Your task to perform on an android device: Add macbook to the cart on newegg, then select checkout. Image 0: 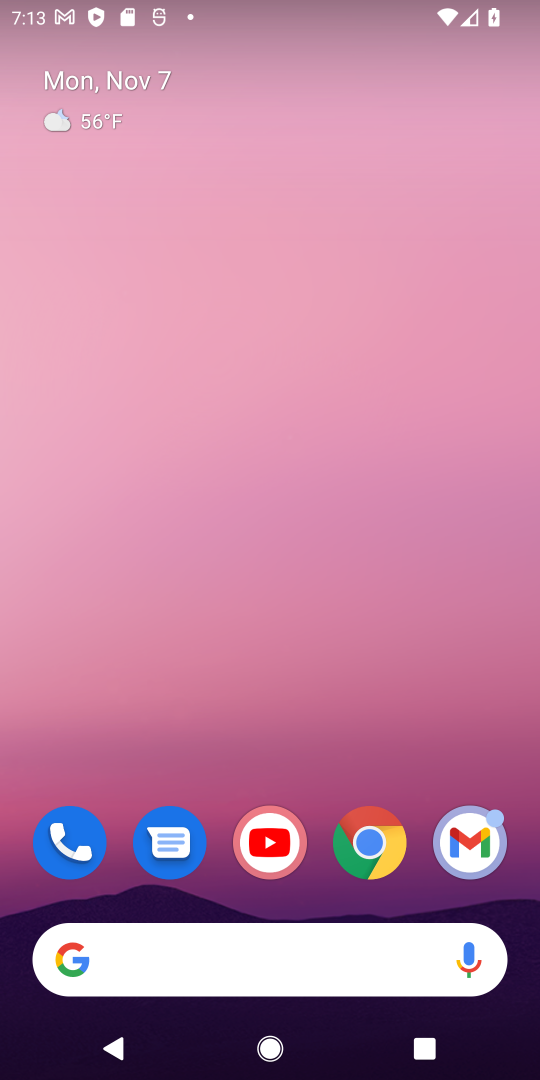
Step 0: click (373, 832)
Your task to perform on an android device: Add macbook to the cart on newegg, then select checkout. Image 1: 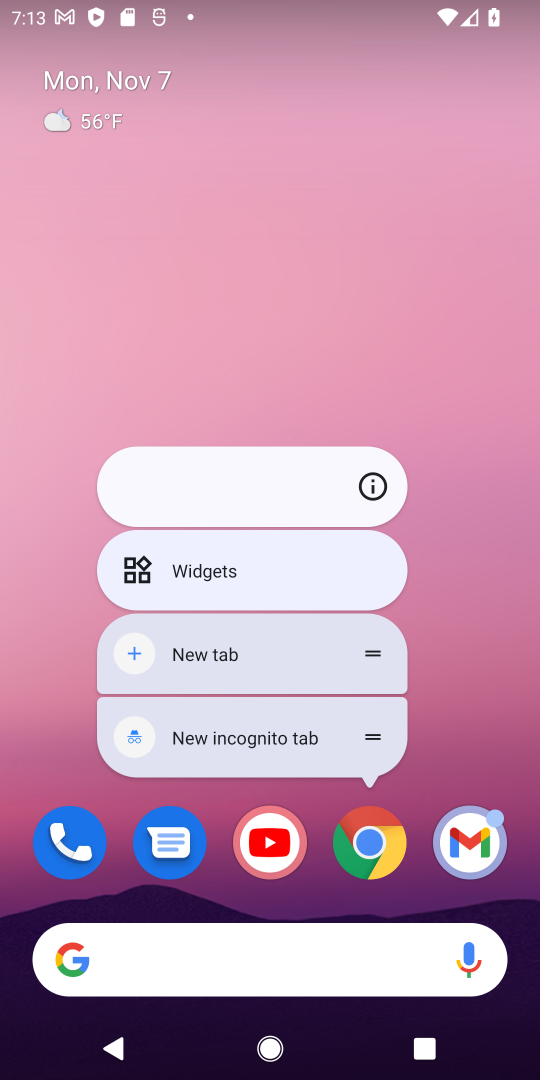
Step 1: click (381, 836)
Your task to perform on an android device: Add macbook to the cart on newegg, then select checkout. Image 2: 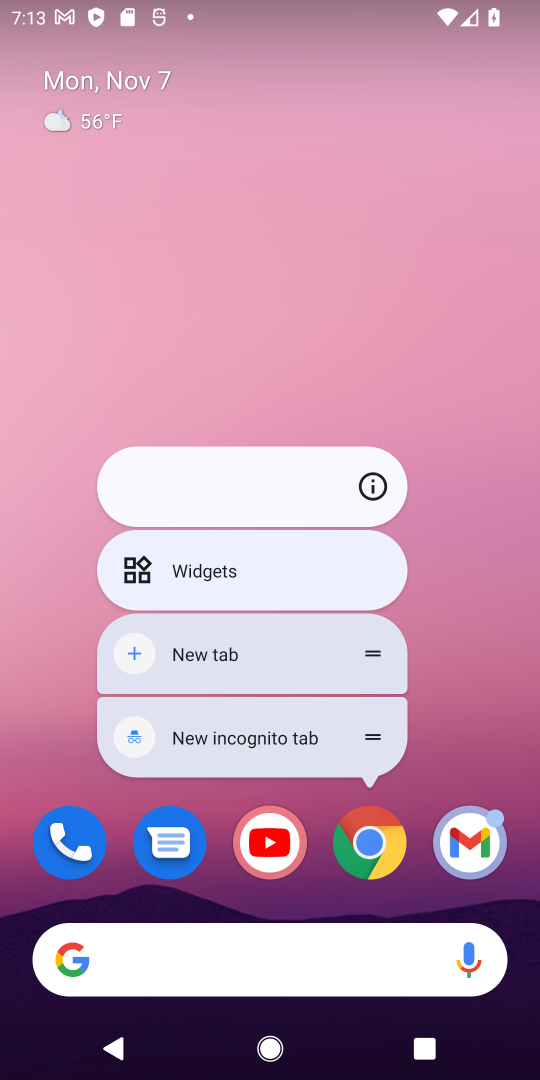
Step 2: click (364, 852)
Your task to perform on an android device: Add macbook to the cart on newegg, then select checkout. Image 3: 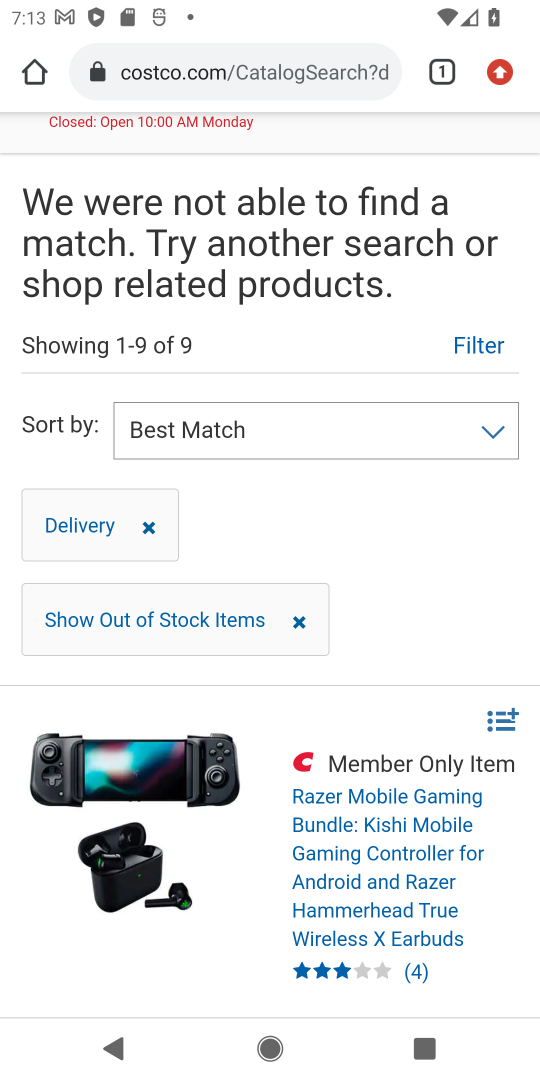
Step 3: click (293, 61)
Your task to perform on an android device: Add macbook to the cart on newegg, then select checkout. Image 4: 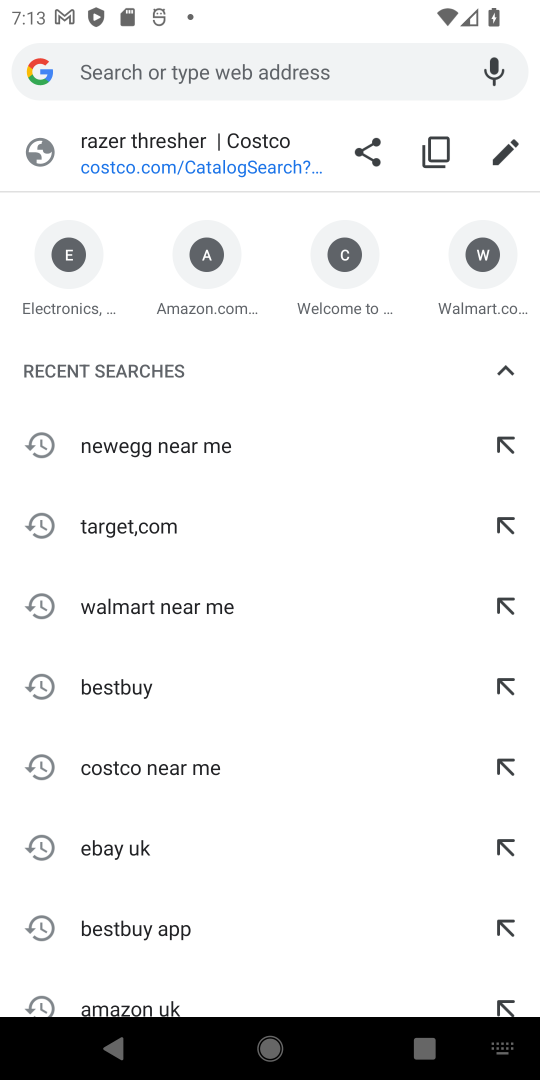
Step 4: click (103, 446)
Your task to perform on an android device: Add macbook to the cart on newegg, then select checkout. Image 5: 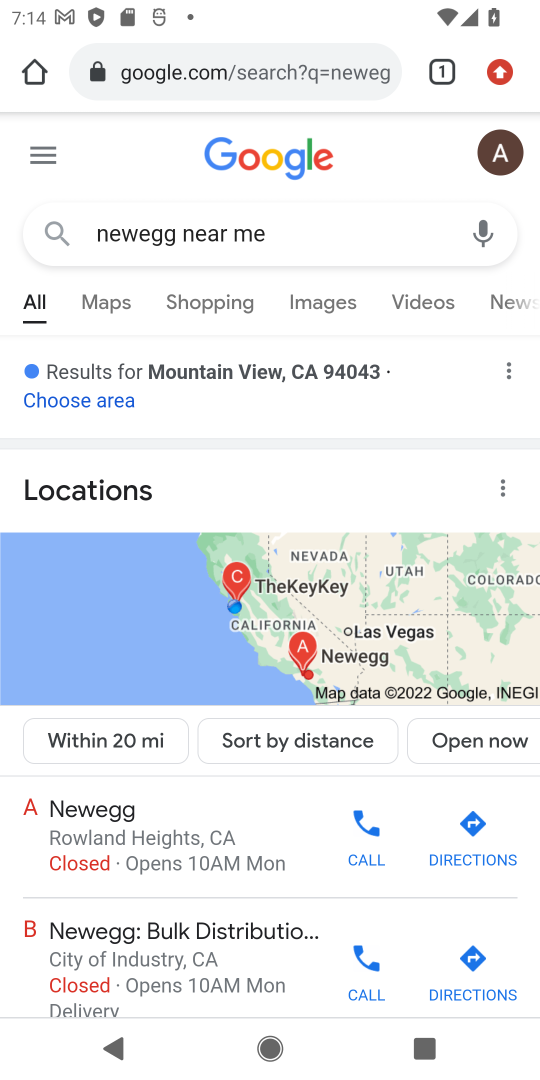
Step 5: drag from (144, 859) to (494, 119)
Your task to perform on an android device: Add macbook to the cart on newegg, then select checkout. Image 6: 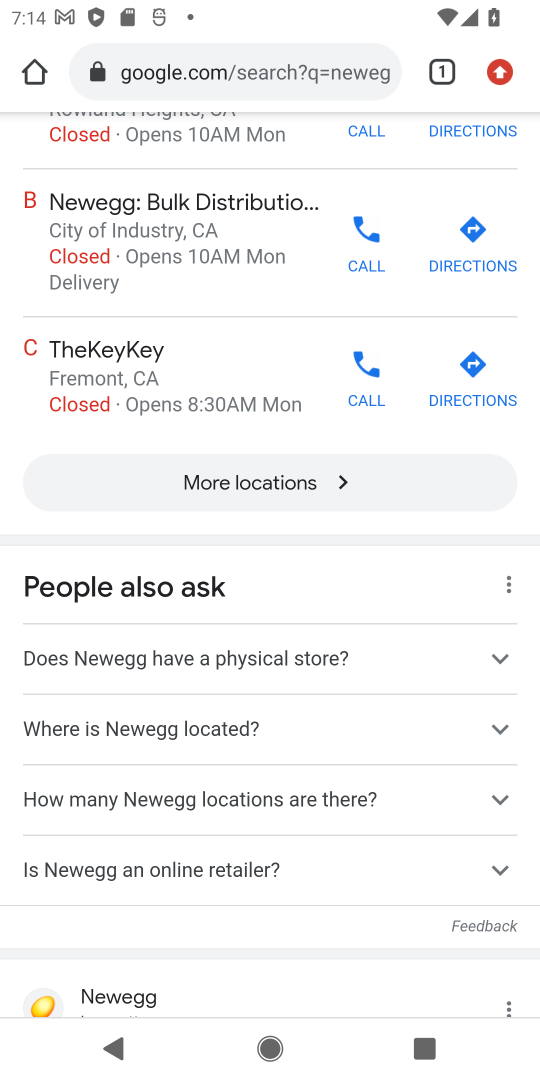
Step 6: drag from (224, 836) to (477, 185)
Your task to perform on an android device: Add macbook to the cart on newegg, then select checkout. Image 7: 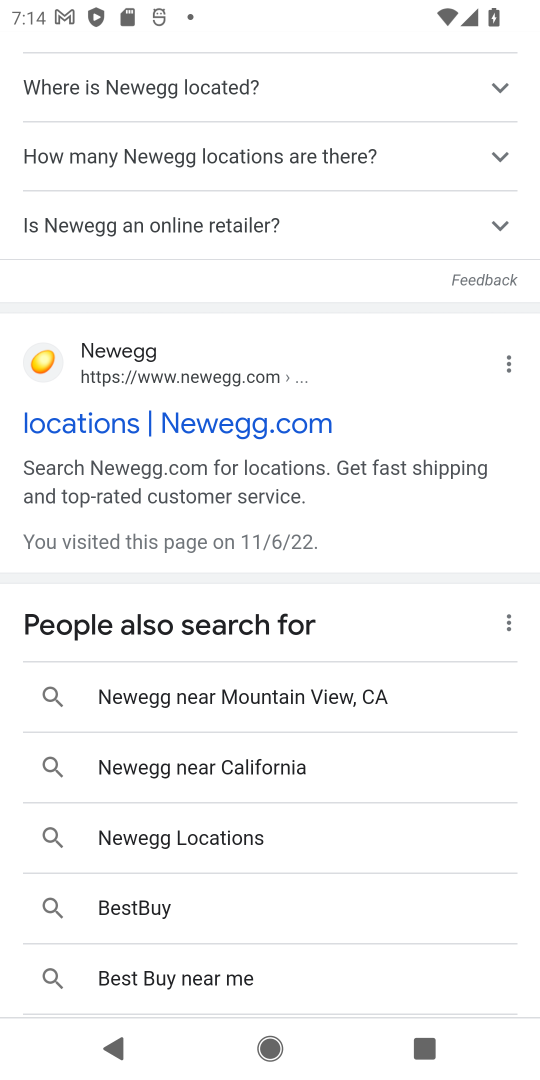
Step 7: click (105, 344)
Your task to perform on an android device: Add macbook to the cart on newegg, then select checkout. Image 8: 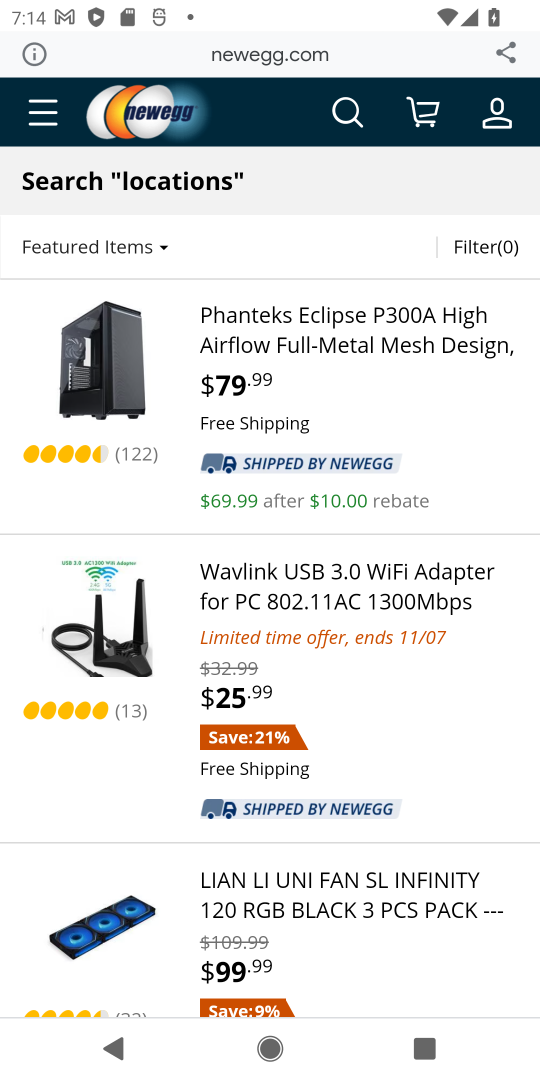
Step 8: click (337, 100)
Your task to perform on an android device: Add macbook to the cart on newegg, then select checkout. Image 9: 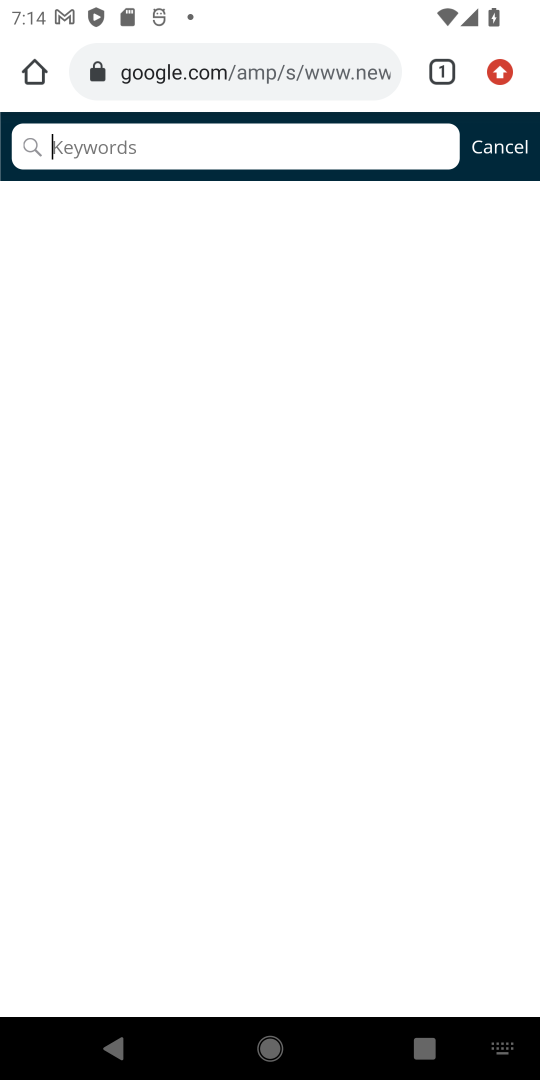
Step 9: click (214, 137)
Your task to perform on an android device: Add macbook to the cart on newegg, then select checkout. Image 10: 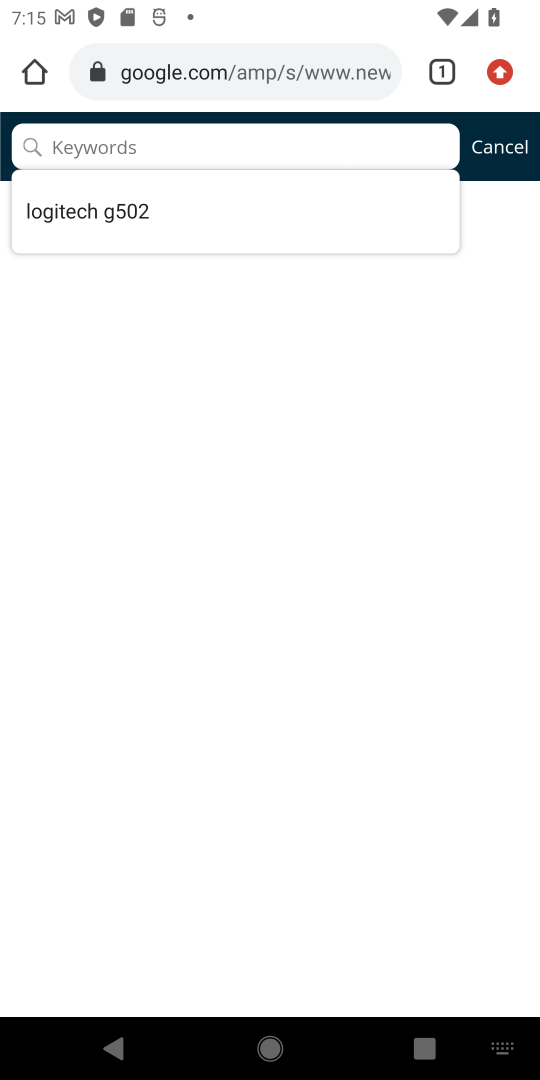
Step 10: type "macbook "
Your task to perform on an android device: Add macbook to the cart on newegg, then select checkout. Image 11: 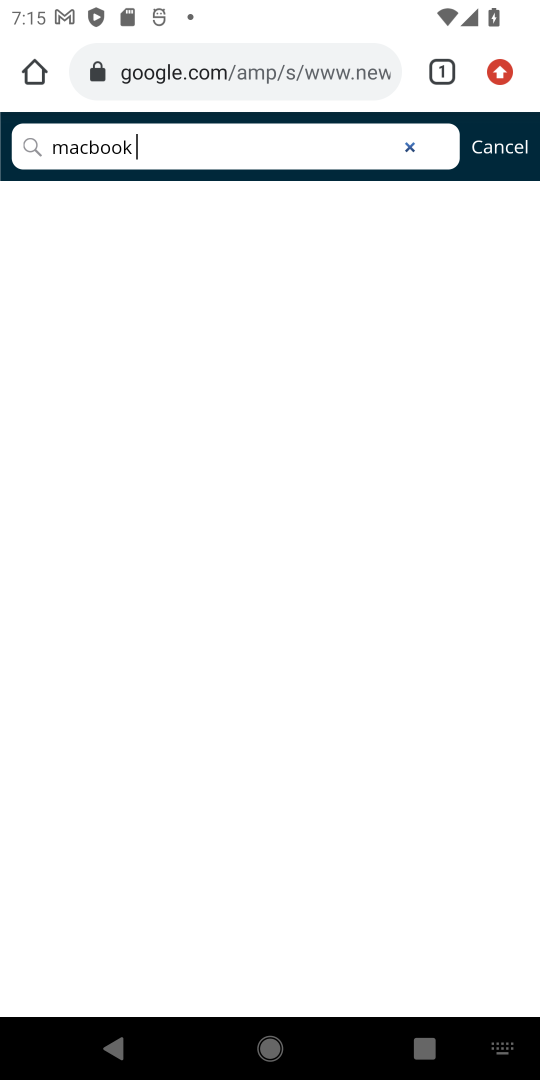
Step 11: press enter
Your task to perform on an android device: Add macbook to the cart on newegg, then select checkout. Image 12: 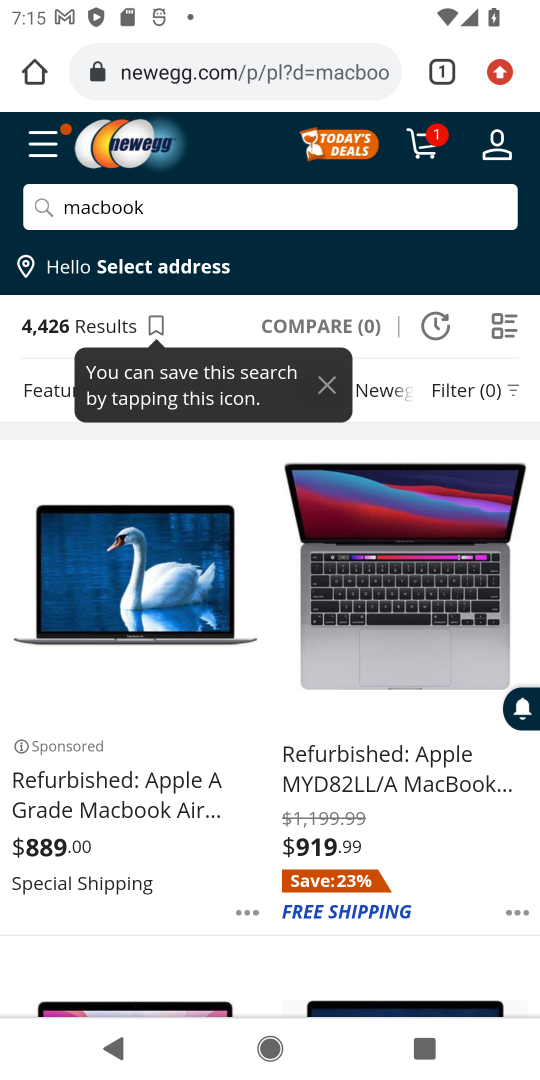
Step 12: click (101, 778)
Your task to perform on an android device: Add macbook to the cart on newegg, then select checkout. Image 13: 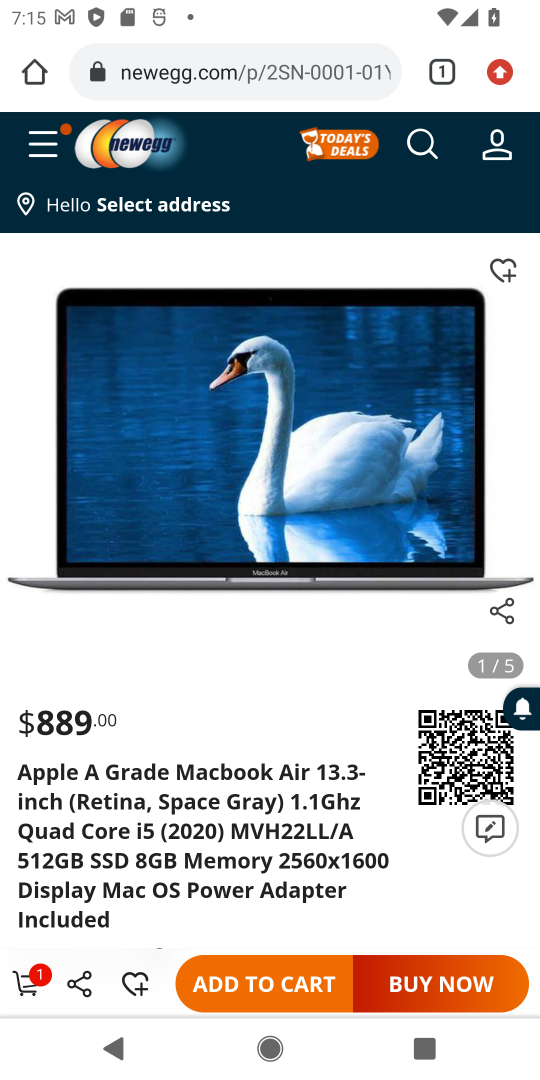
Step 13: click (218, 980)
Your task to perform on an android device: Add macbook to the cart on newegg, then select checkout. Image 14: 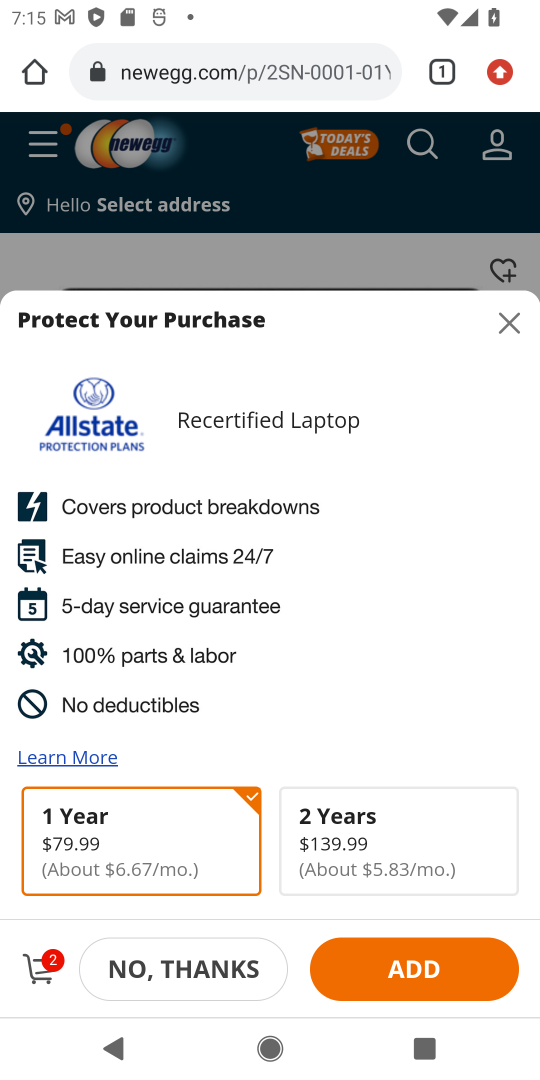
Step 14: click (39, 963)
Your task to perform on an android device: Add macbook to the cart on newegg, then select checkout. Image 15: 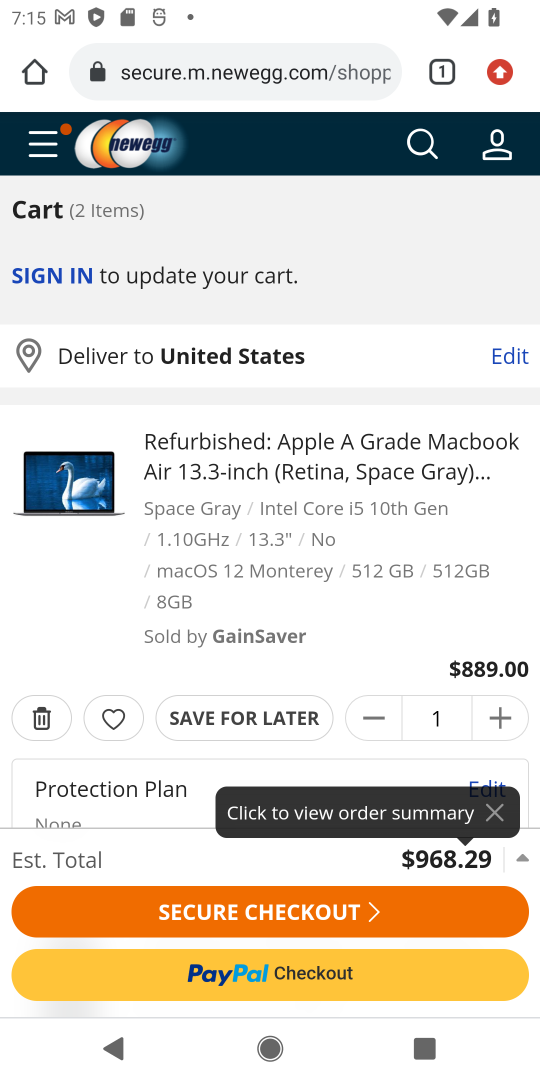
Step 15: drag from (122, 749) to (390, 142)
Your task to perform on an android device: Add macbook to the cart on newegg, then select checkout. Image 16: 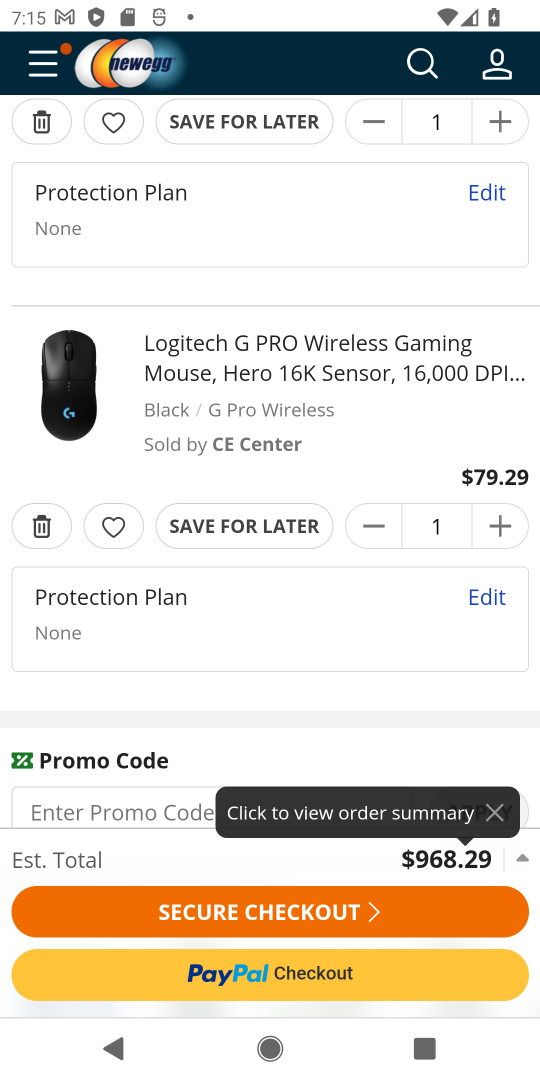
Step 16: click (40, 531)
Your task to perform on an android device: Add macbook to the cart on newegg, then select checkout. Image 17: 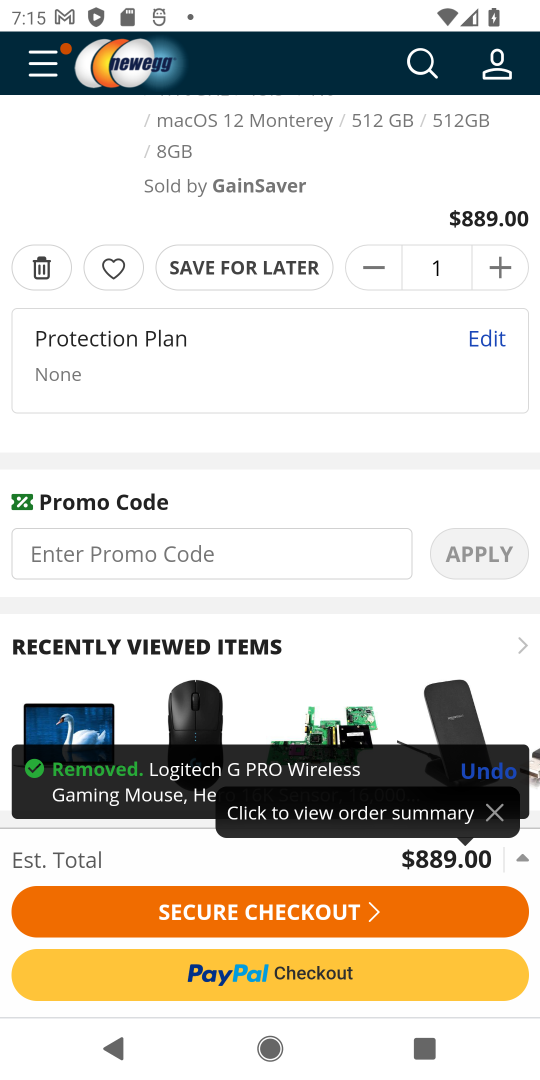
Step 17: drag from (131, 676) to (429, 145)
Your task to perform on an android device: Add macbook to the cart on newegg, then select checkout. Image 18: 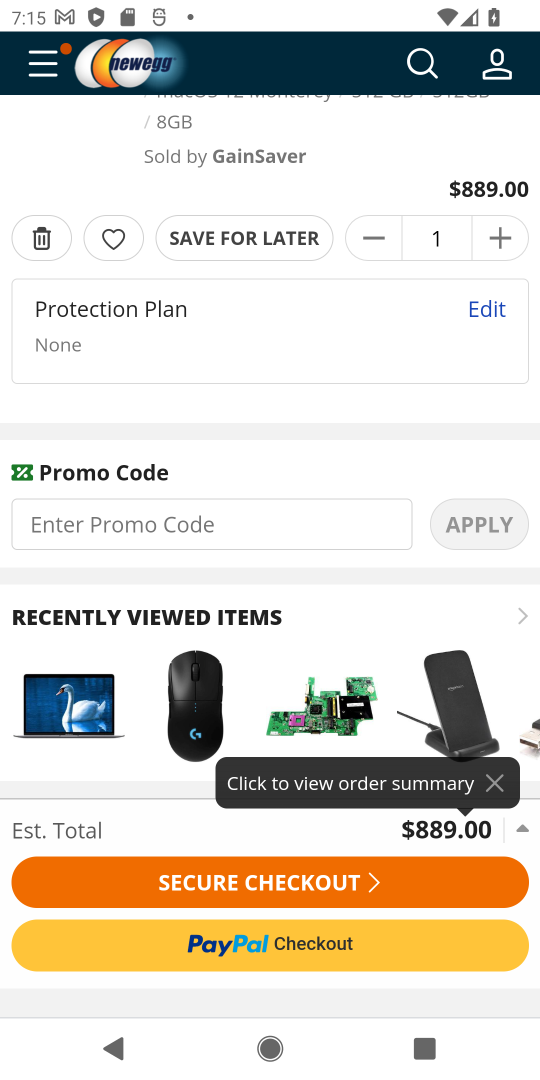
Step 18: click (315, 889)
Your task to perform on an android device: Add macbook to the cart on newegg, then select checkout. Image 19: 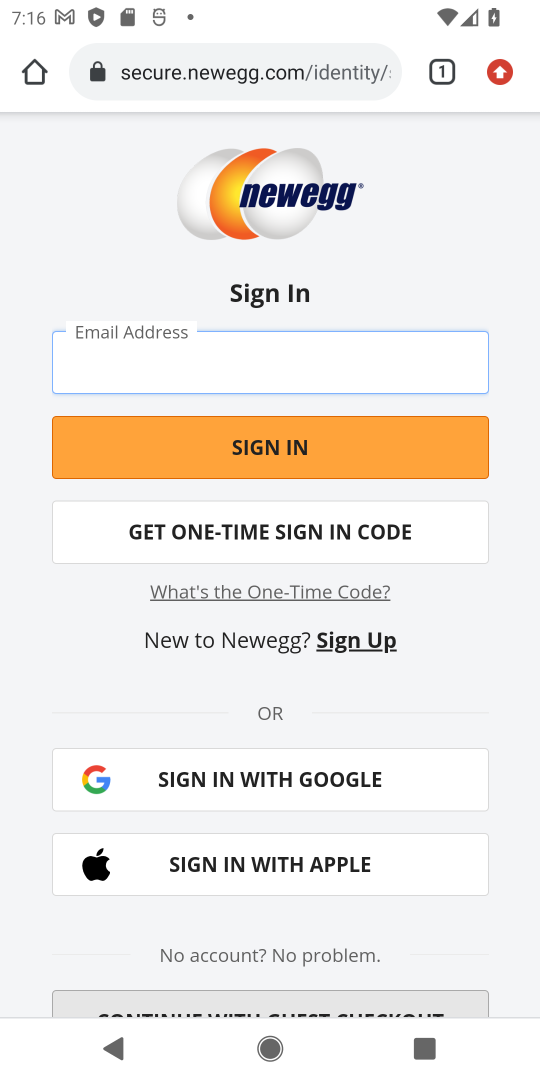
Step 19: task complete